Your task to perform on an android device: Open eBay Image 0: 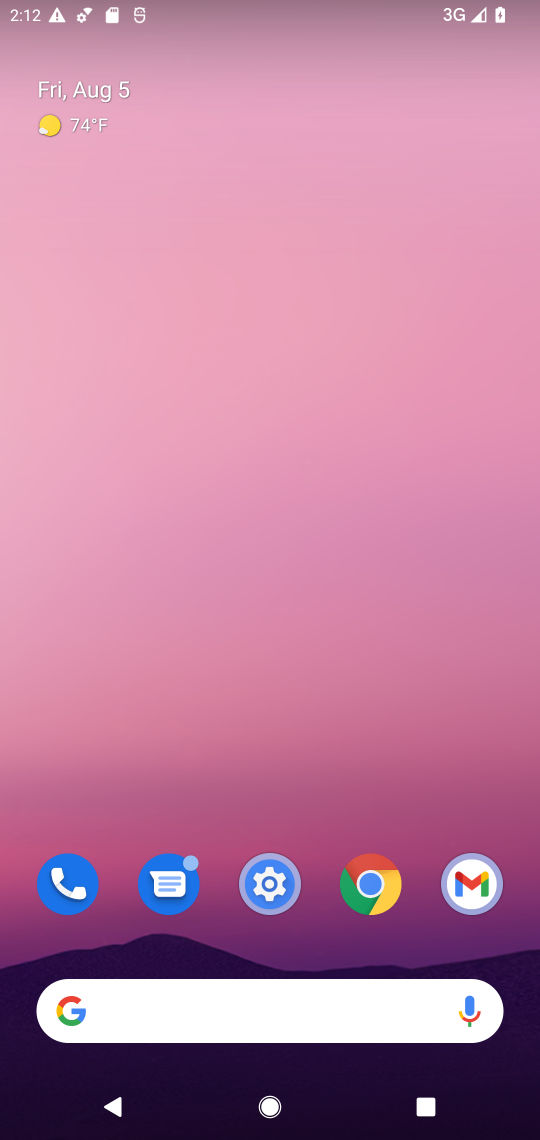
Step 0: drag from (318, 779) to (260, 76)
Your task to perform on an android device: Open eBay Image 1: 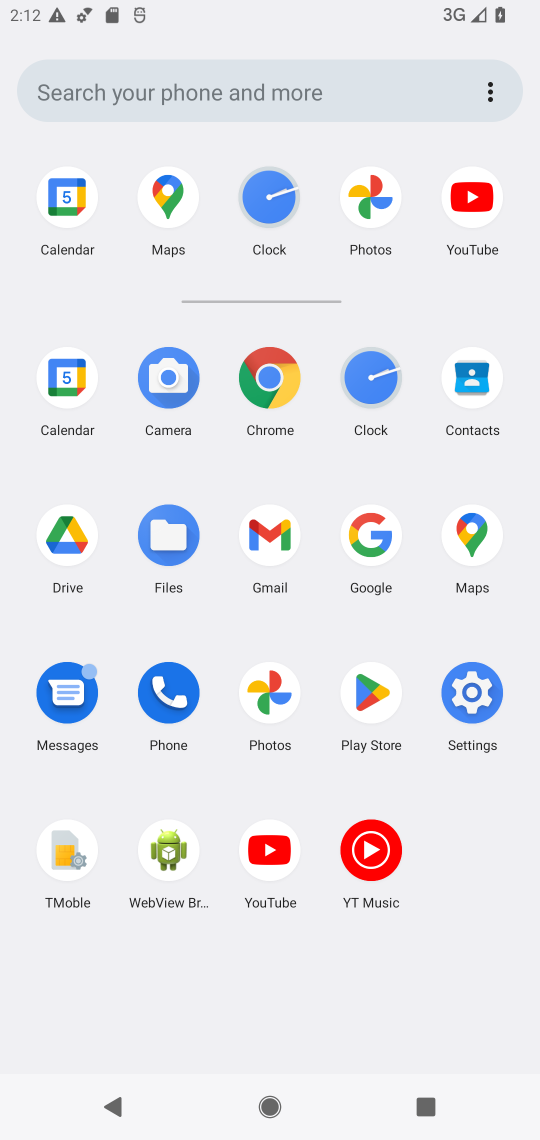
Step 1: click (366, 536)
Your task to perform on an android device: Open eBay Image 2: 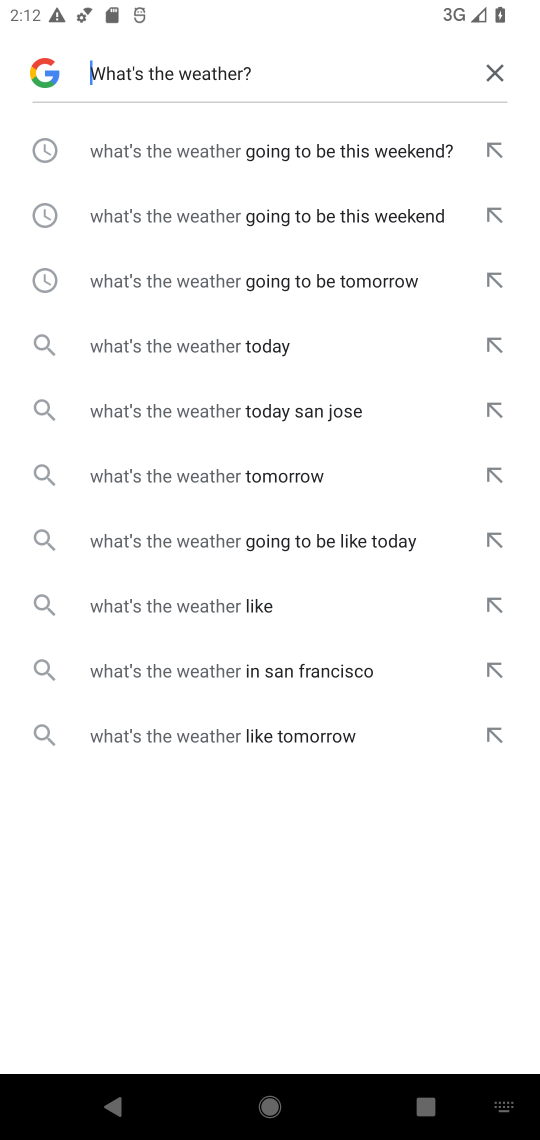
Step 2: click (513, 77)
Your task to perform on an android device: Open eBay Image 3: 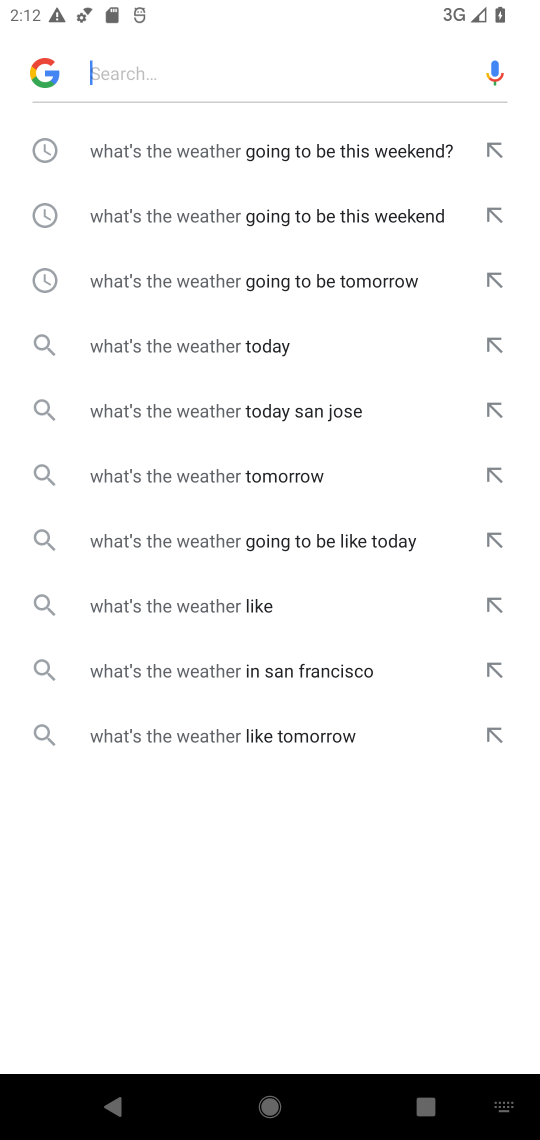
Step 3: press back button
Your task to perform on an android device: Open eBay Image 4: 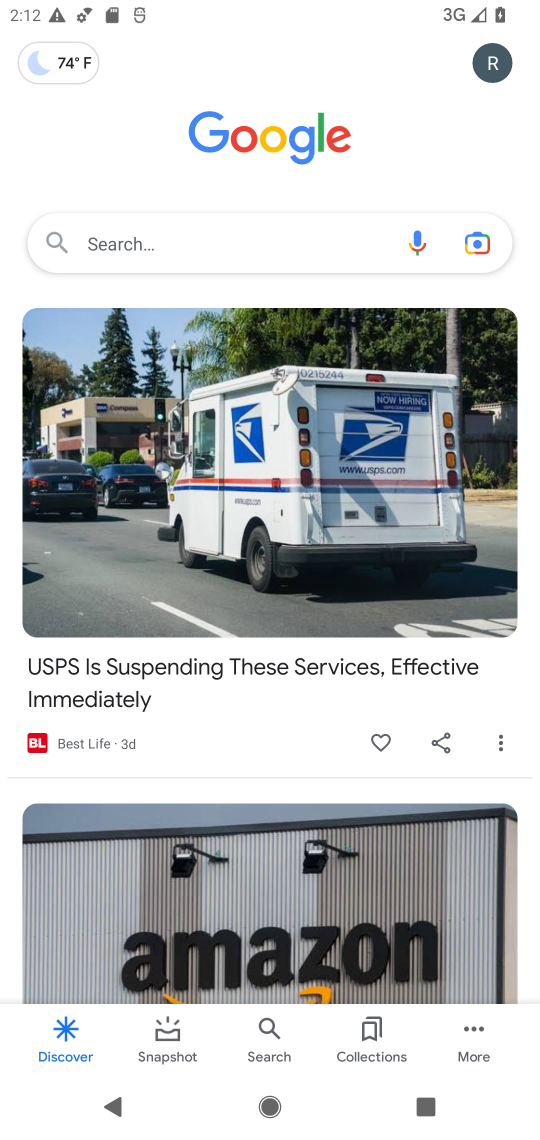
Step 4: click (144, 234)
Your task to perform on an android device: Open eBay Image 5: 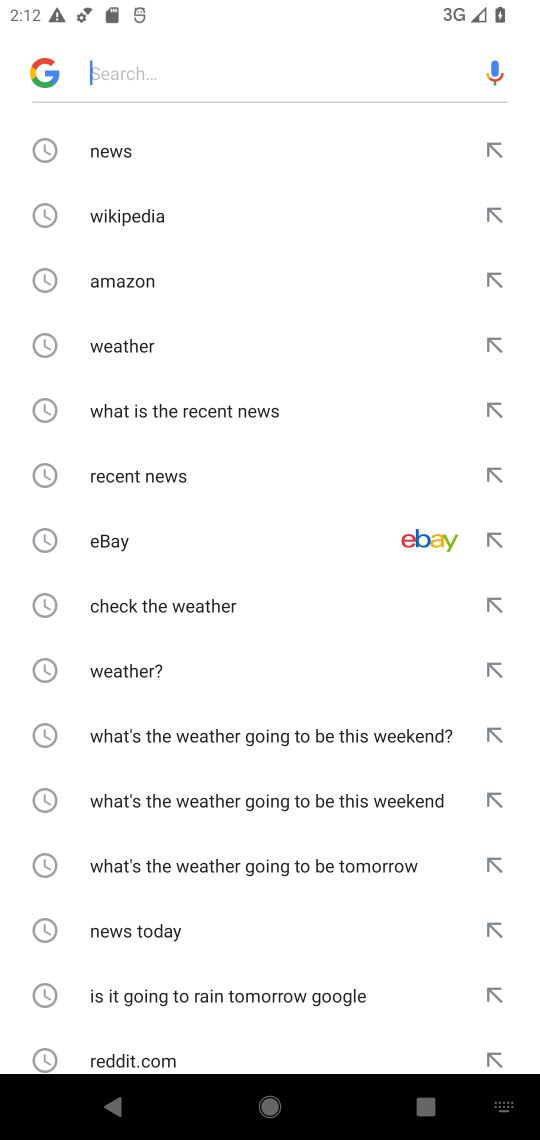
Step 5: click (115, 546)
Your task to perform on an android device: Open eBay Image 6: 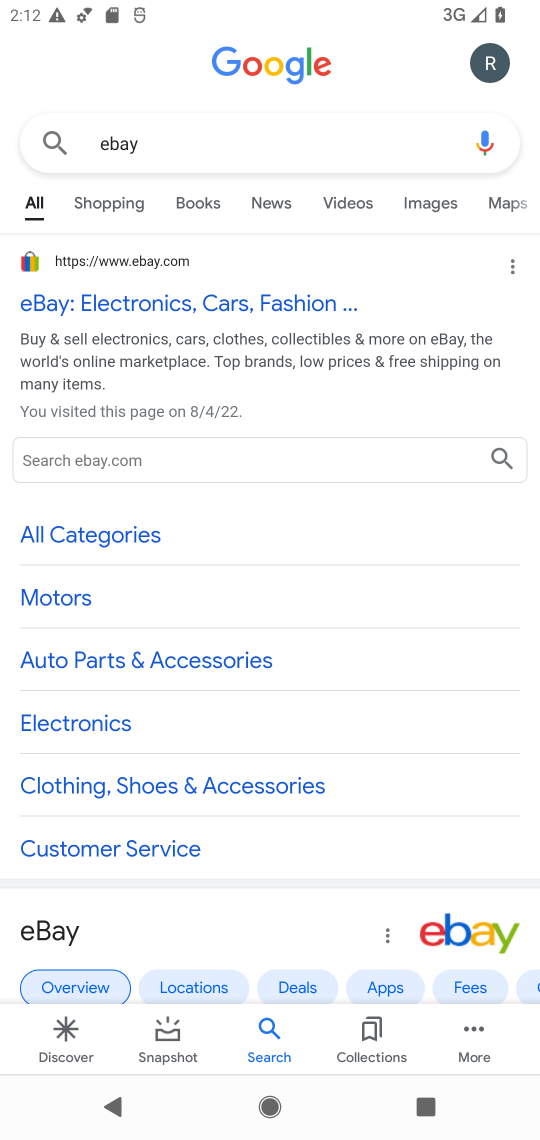
Step 6: task complete